Your task to perform on an android device: turn off javascript in the chrome app Image 0: 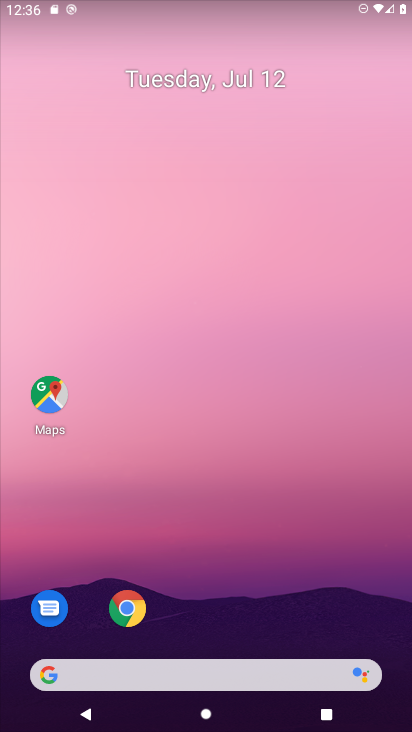
Step 0: click (131, 615)
Your task to perform on an android device: turn off javascript in the chrome app Image 1: 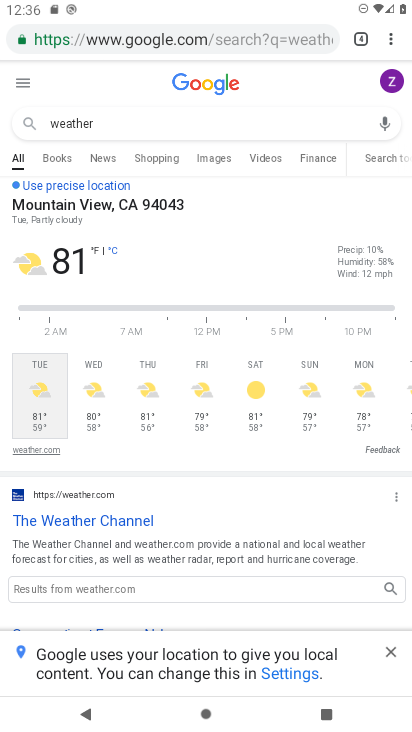
Step 1: drag from (386, 36) to (262, 431)
Your task to perform on an android device: turn off javascript in the chrome app Image 2: 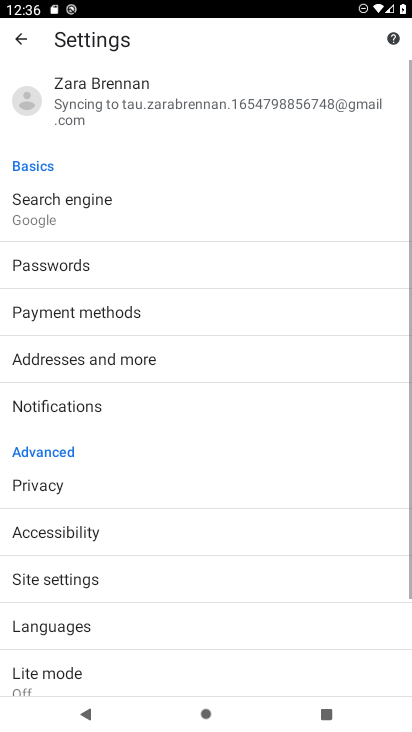
Step 2: drag from (133, 605) to (164, 128)
Your task to perform on an android device: turn off javascript in the chrome app Image 3: 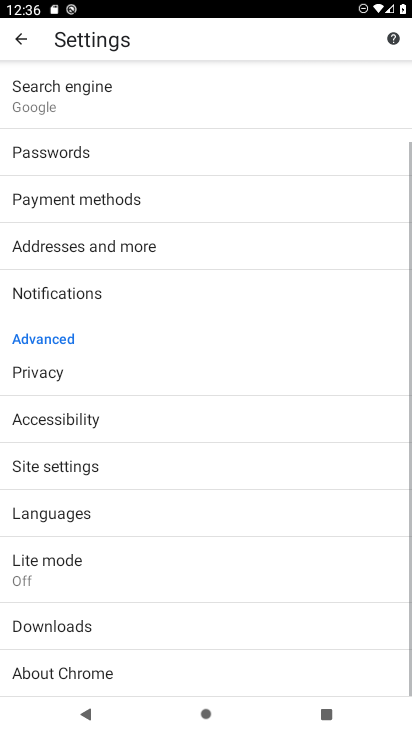
Step 3: click (54, 463)
Your task to perform on an android device: turn off javascript in the chrome app Image 4: 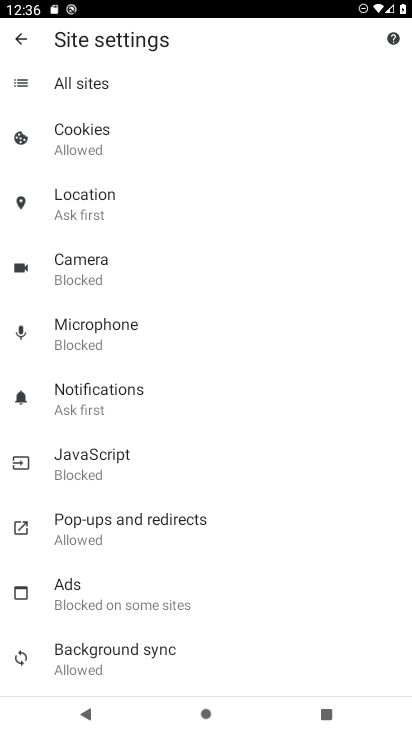
Step 4: click (89, 450)
Your task to perform on an android device: turn off javascript in the chrome app Image 5: 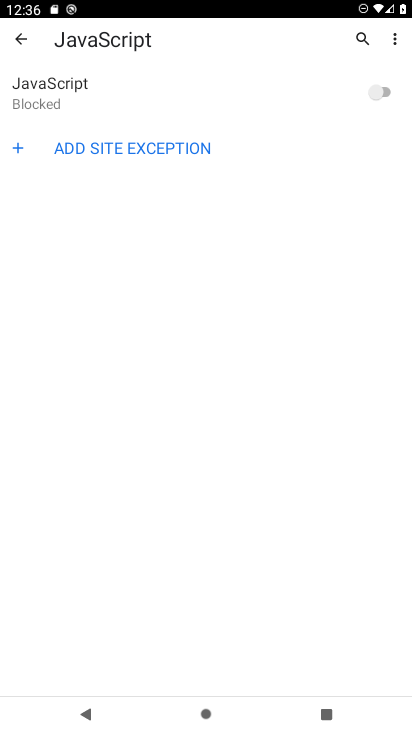
Step 5: task complete